Your task to perform on an android device: turn on notifications settings in the gmail app Image 0: 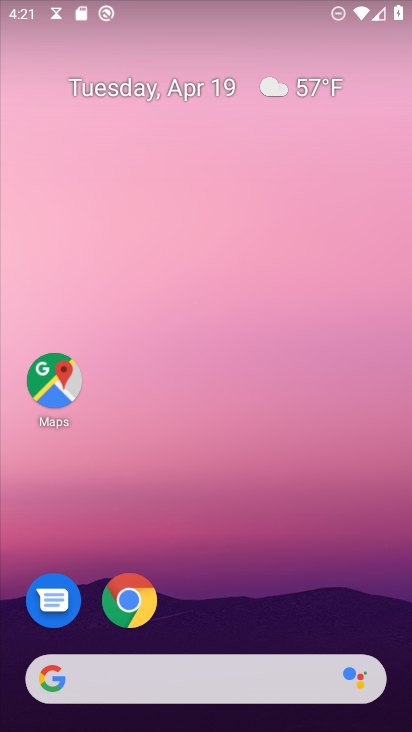
Step 0: drag from (340, 554) to (285, 174)
Your task to perform on an android device: turn on notifications settings in the gmail app Image 1: 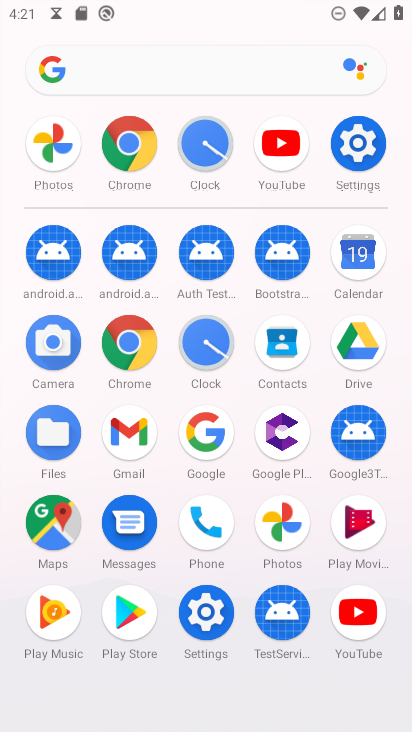
Step 1: click (129, 453)
Your task to perform on an android device: turn on notifications settings in the gmail app Image 2: 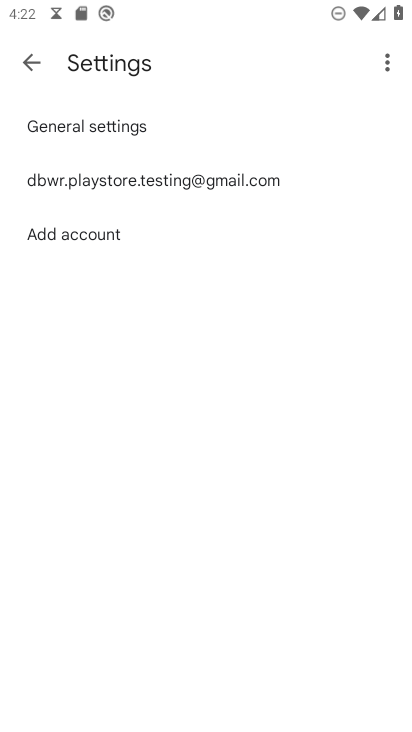
Step 2: click (135, 195)
Your task to perform on an android device: turn on notifications settings in the gmail app Image 3: 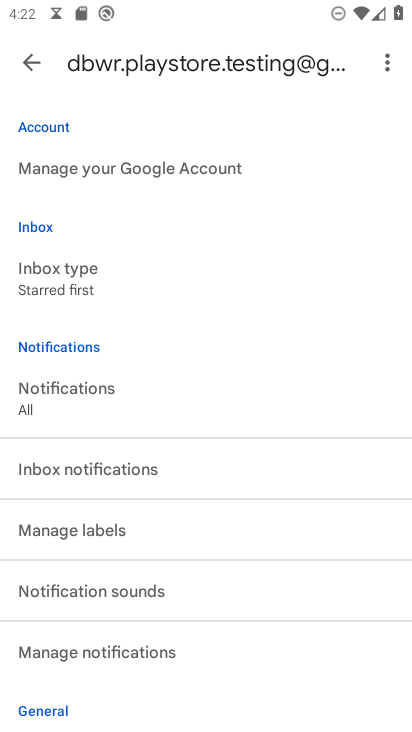
Step 3: click (232, 639)
Your task to perform on an android device: turn on notifications settings in the gmail app Image 4: 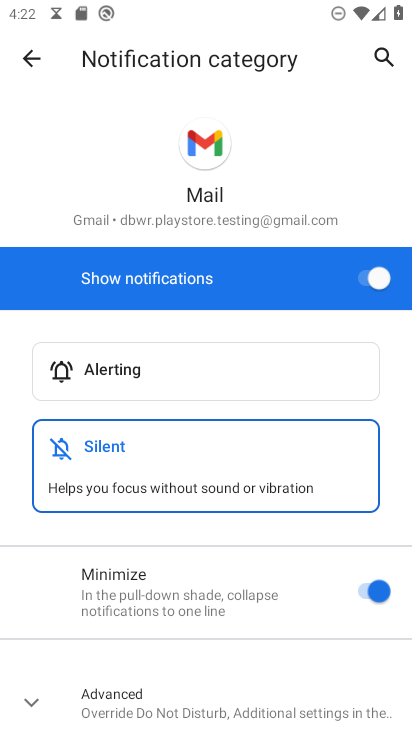
Step 4: task complete